Your task to perform on an android device: turn on sleep mode Image 0: 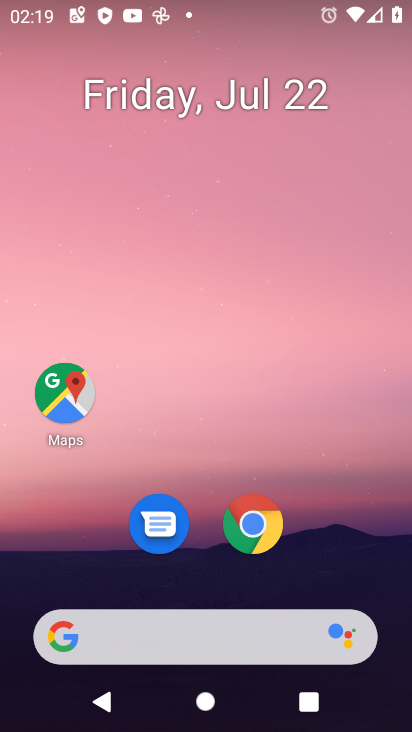
Step 0: drag from (178, 637) to (309, 184)
Your task to perform on an android device: turn on sleep mode Image 1: 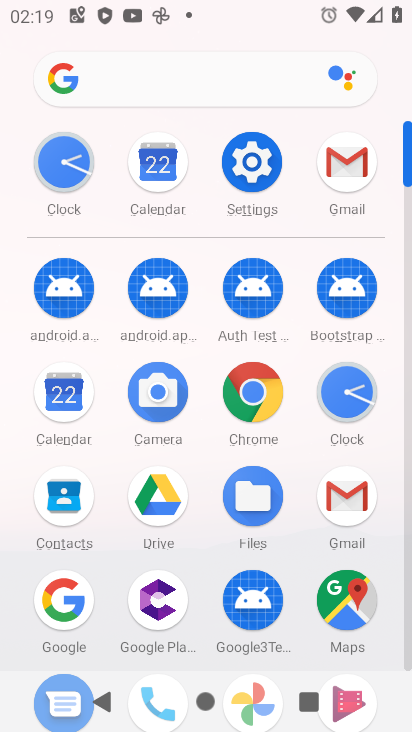
Step 1: click (260, 160)
Your task to perform on an android device: turn on sleep mode Image 2: 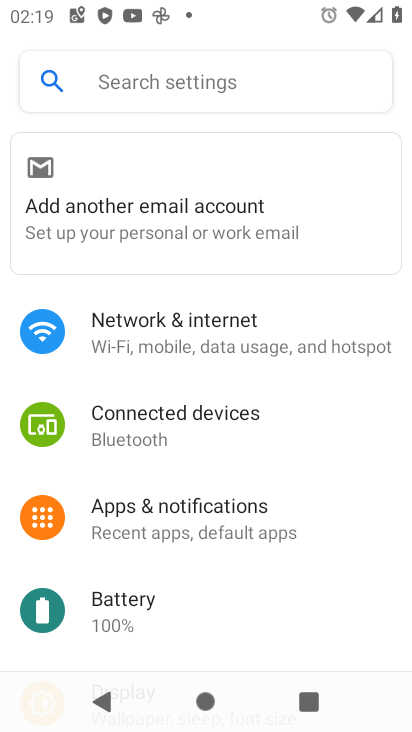
Step 2: drag from (218, 605) to (288, 298)
Your task to perform on an android device: turn on sleep mode Image 3: 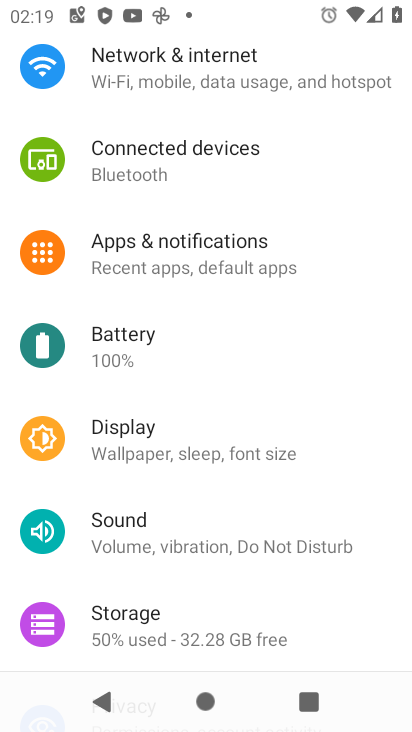
Step 3: click (154, 442)
Your task to perform on an android device: turn on sleep mode Image 4: 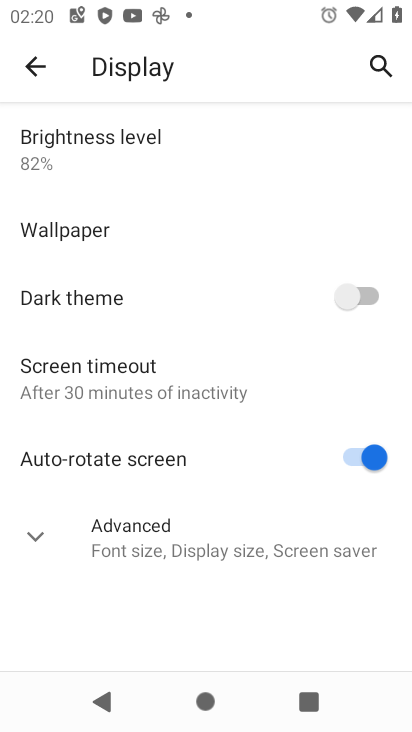
Step 4: task complete